Your task to perform on an android device: What's on my calendar tomorrow? Image 0: 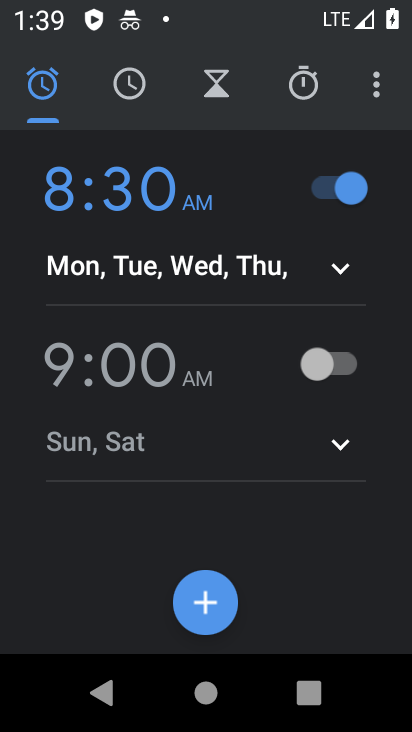
Step 0: press home button
Your task to perform on an android device: What's on my calendar tomorrow? Image 1: 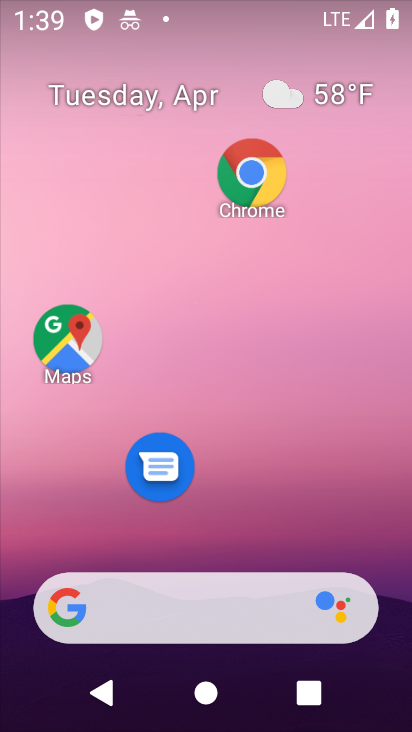
Step 1: drag from (160, 419) to (251, 12)
Your task to perform on an android device: What's on my calendar tomorrow? Image 2: 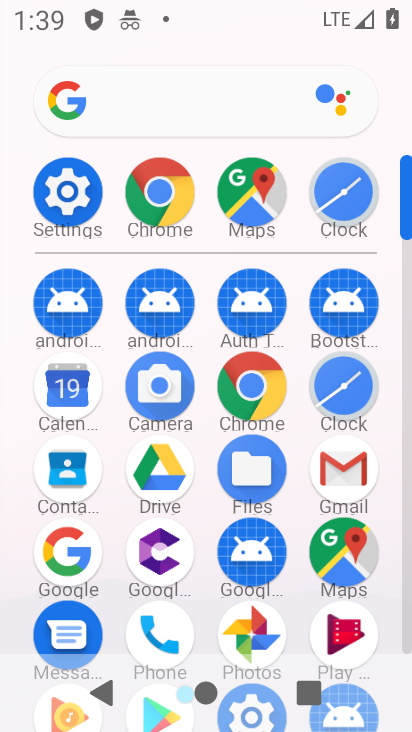
Step 2: click (65, 403)
Your task to perform on an android device: What's on my calendar tomorrow? Image 3: 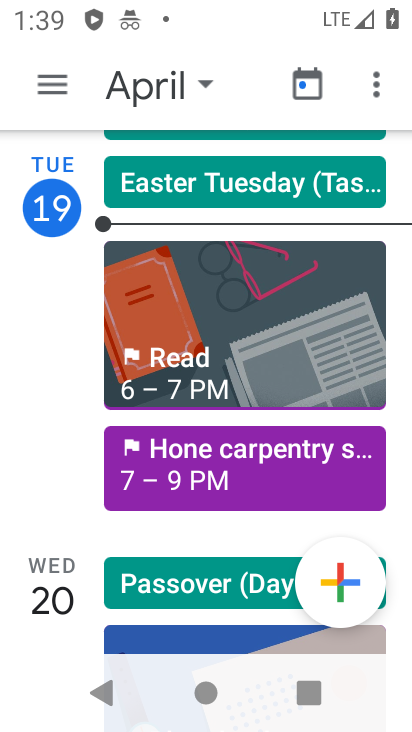
Step 3: click (202, 90)
Your task to perform on an android device: What's on my calendar tomorrow? Image 4: 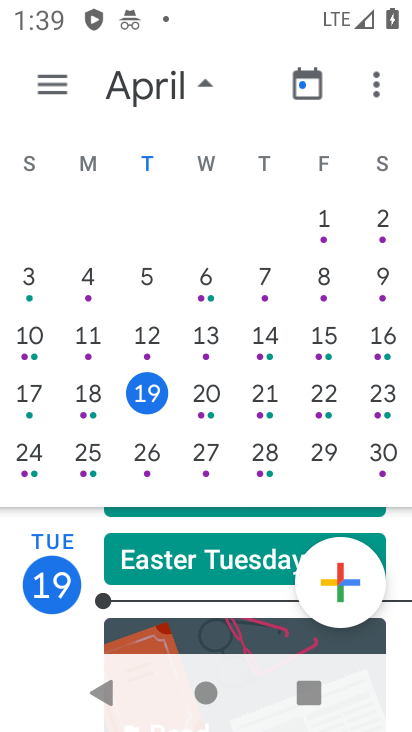
Step 4: task complete